Your task to perform on an android device: Clear all items from cart on target. Add logitech g903 to the cart on target, then select checkout. Image 0: 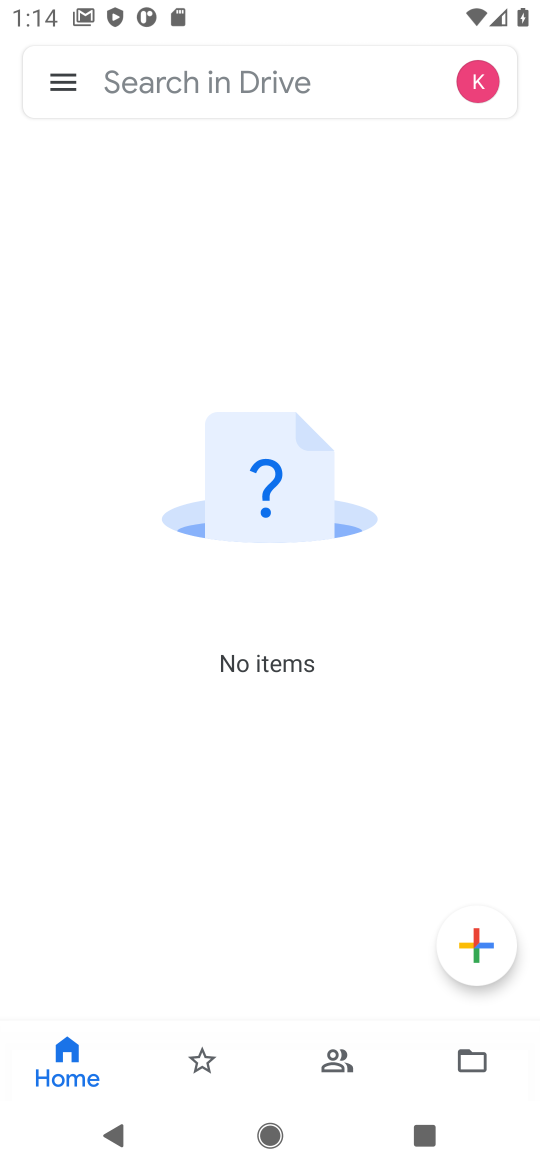
Step 0: press home button
Your task to perform on an android device: Clear all items from cart on target. Add logitech g903 to the cart on target, then select checkout. Image 1: 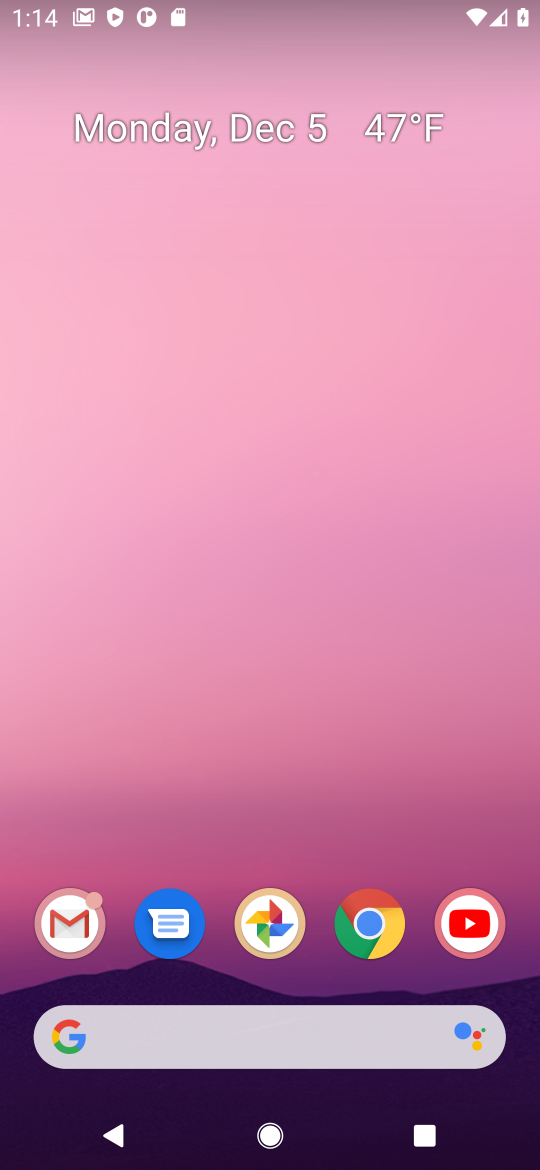
Step 1: click (328, 1031)
Your task to perform on an android device: Clear all items from cart on target. Add logitech g903 to the cart on target, then select checkout. Image 2: 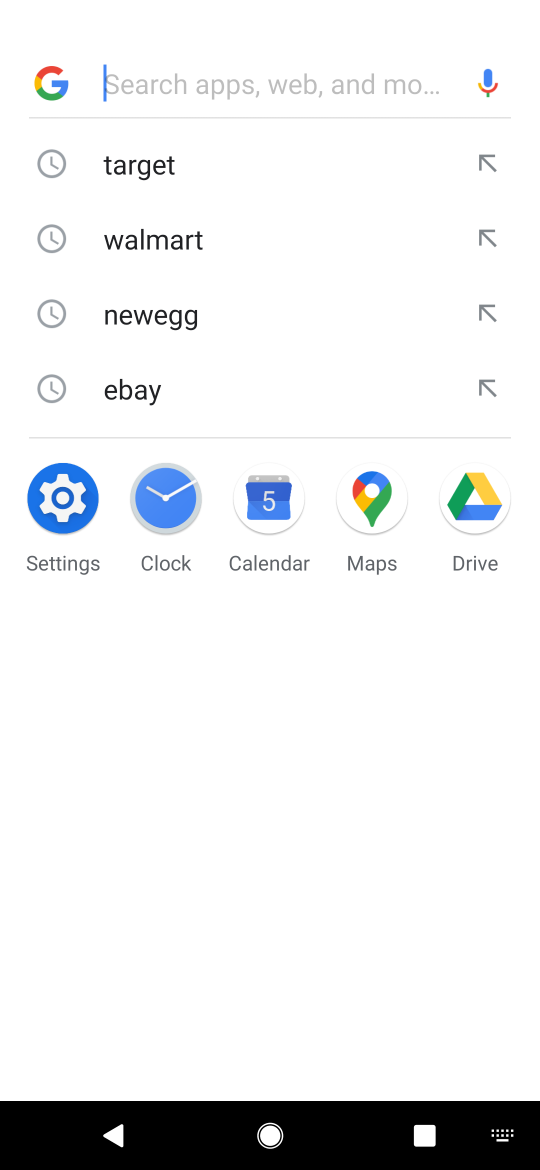
Step 2: type "target"
Your task to perform on an android device: Clear all items from cart on target. Add logitech g903 to the cart on target, then select checkout. Image 3: 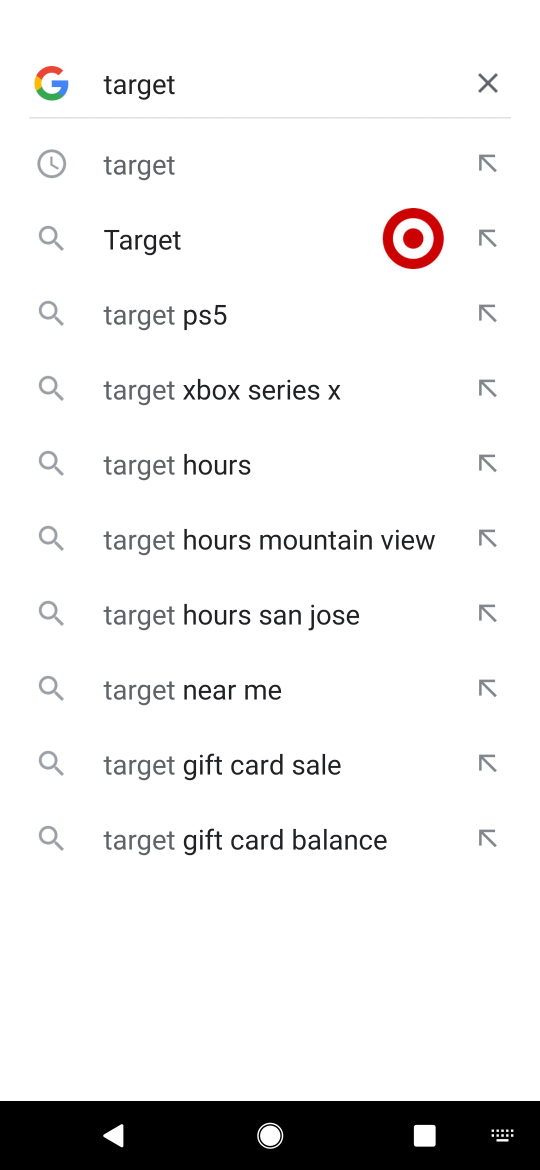
Step 3: click (190, 242)
Your task to perform on an android device: Clear all items from cart on target. Add logitech g903 to the cart on target, then select checkout. Image 4: 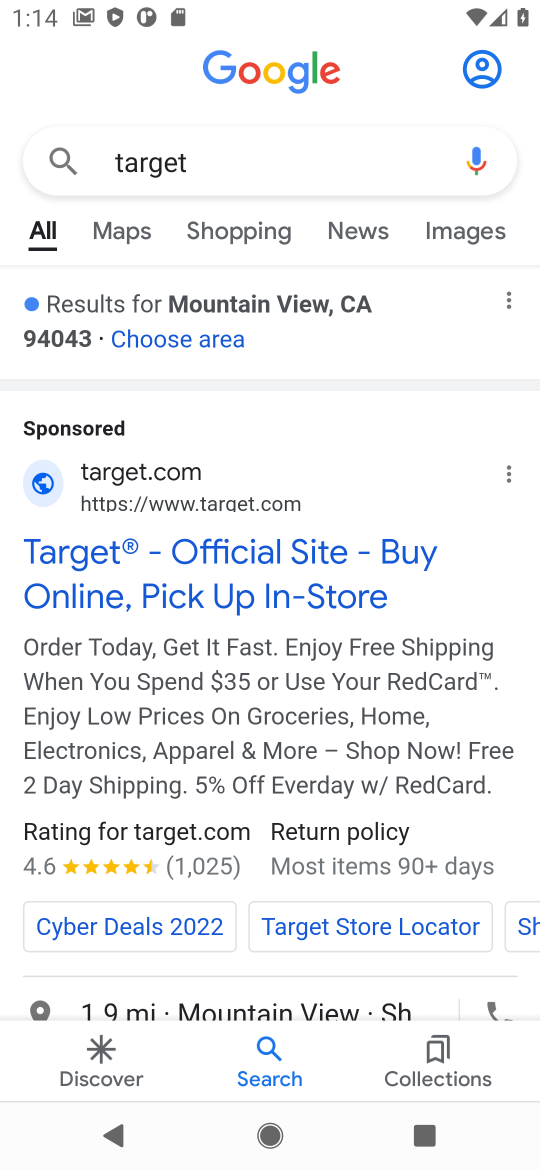
Step 4: click (169, 536)
Your task to perform on an android device: Clear all items from cart on target. Add logitech g903 to the cart on target, then select checkout. Image 5: 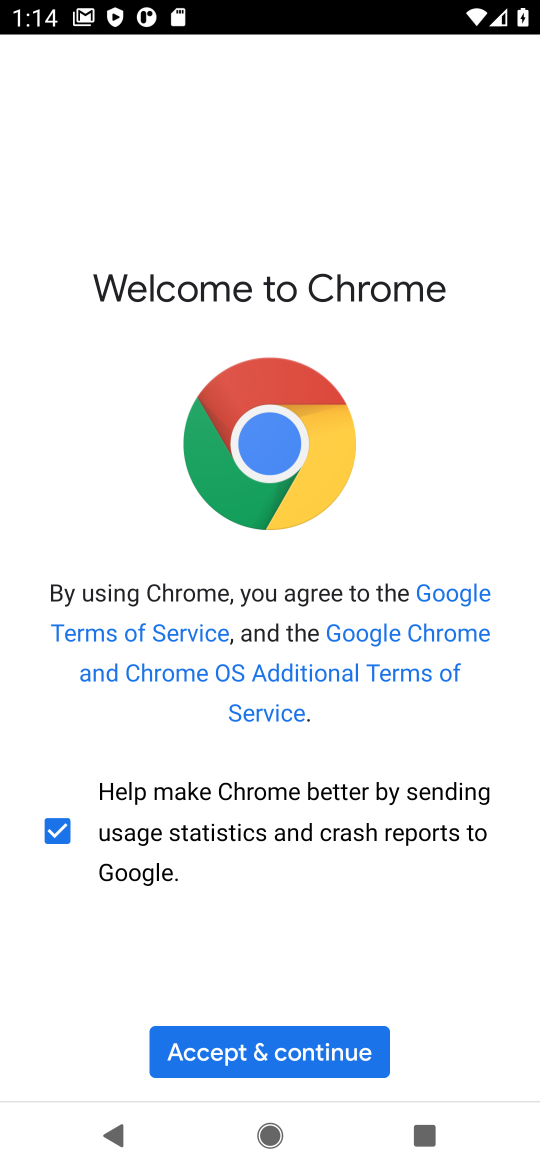
Step 5: click (294, 1070)
Your task to perform on an android device: Clear all items from cart on target. Add logitech g903 to the cart on target, then select checkout. Image 6: 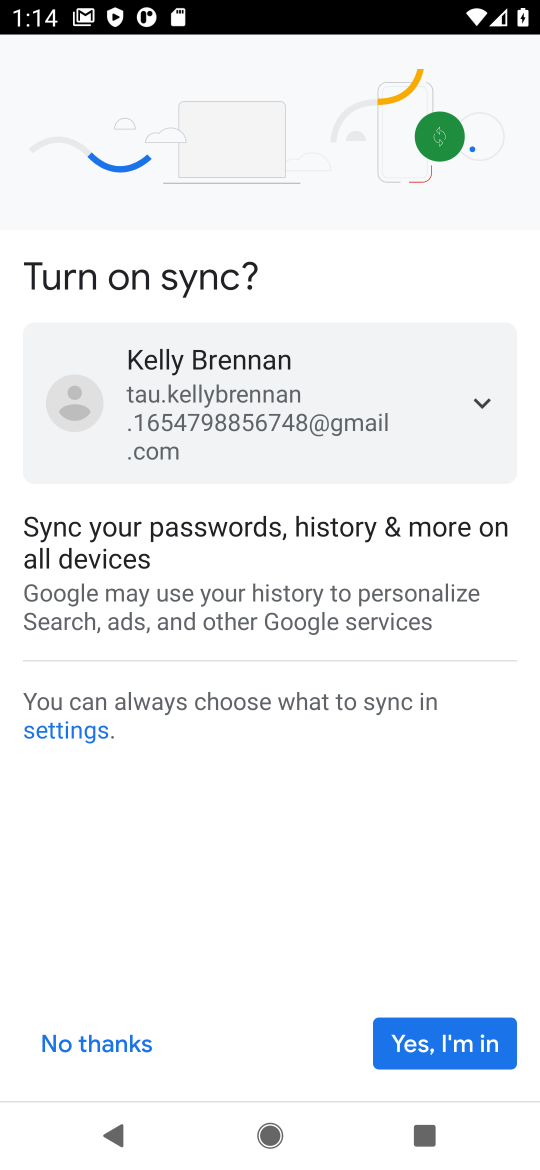
Step 6: click (474, 1054)
Your task to perform on an android device: Clear all items from cart on target. Add logitech g903 to the cart on target, then select checkout. Image 7: 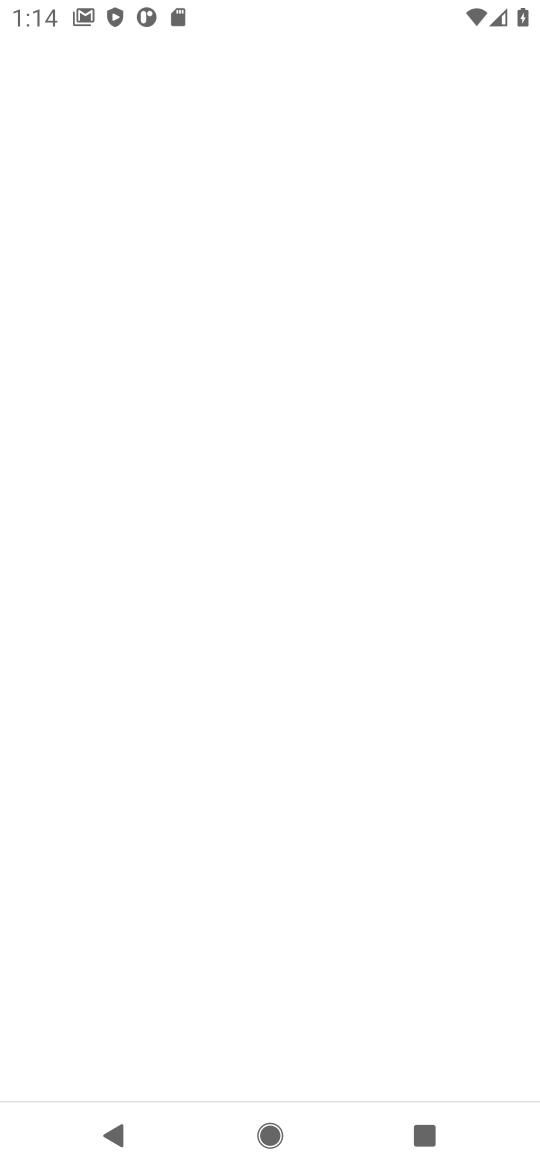
Step 7: task complete